Your task to perform on an android device: toggle notifications settings in the gmail app Image 0: 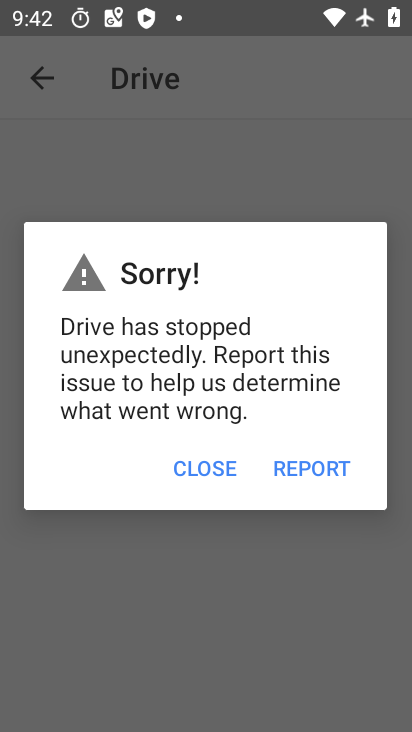
Step 0: press home button
Your task to perform on an android device: toggle notifications settings in the gmail app Image 1: 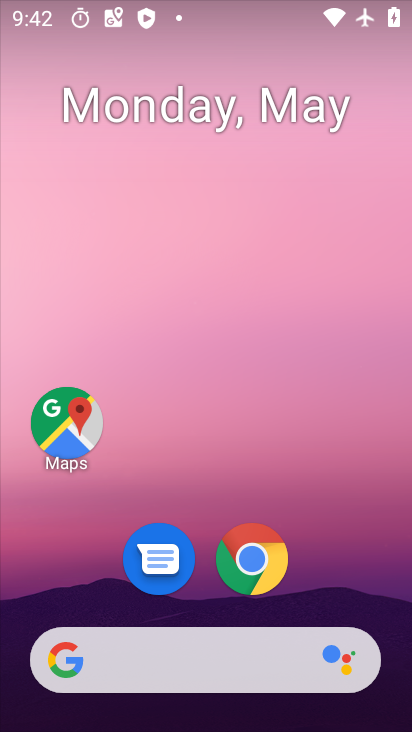
Step 1: drag from (334, 596) to (344, 59)
Your task to perform on an android device: toggle notifications settings in the gmail app Image 2: 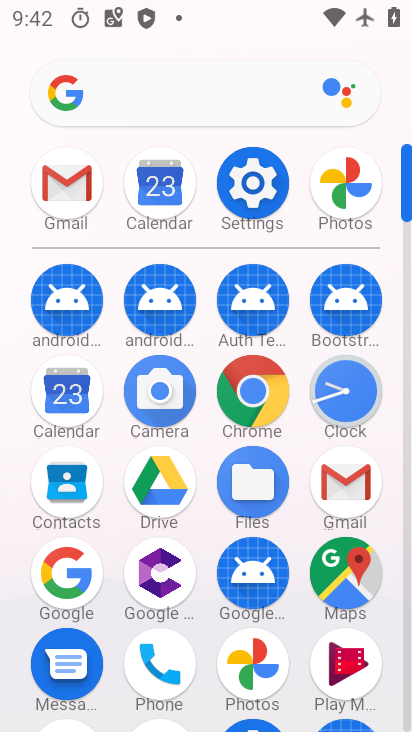
Step 2: click (348, 494)
Your task to perform on an android device: toggle notifications settings in the gmail app Image 3: 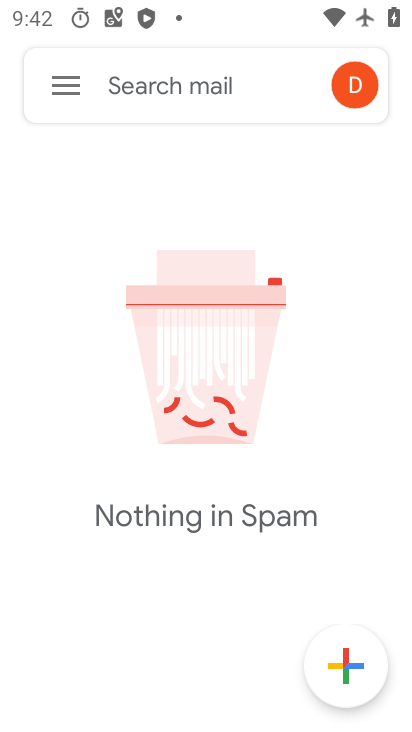
Step 3: click (69, 93)
Your task to perform on an android device: toggle notifications settings in the gmail app Image 4: 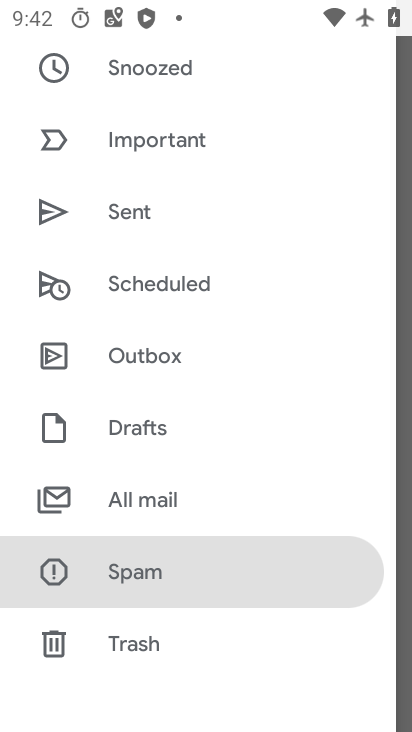
Step 4: drag from (188, 645) to (250, 200)
Your task to perform on an android device: toggle notifications settings in the gmail app Image 5: 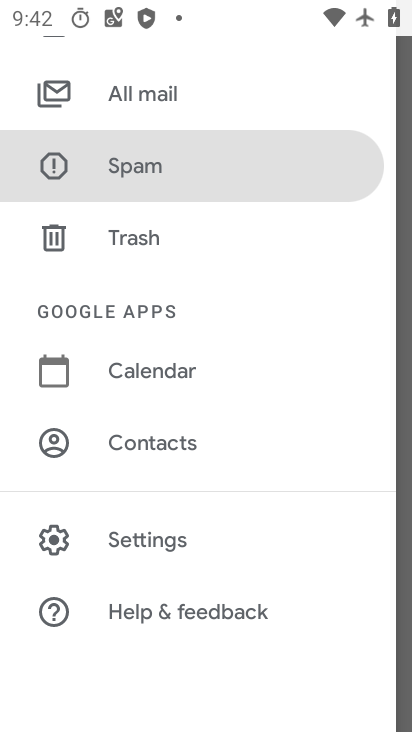
Step 5: click (173, 547)
Your task to perform on an android device: toggle notifications settings in the gmail app Image 6: 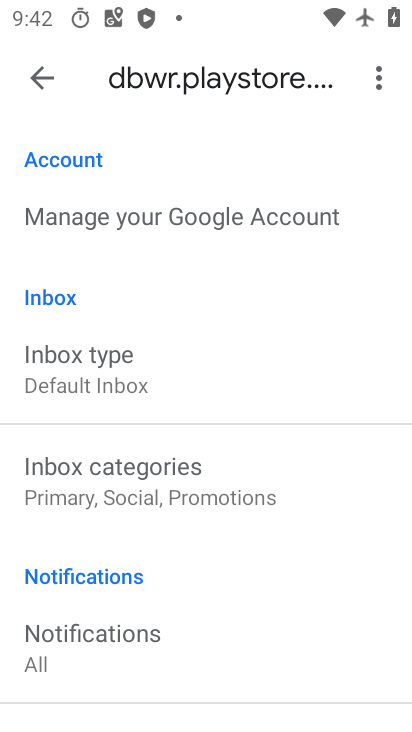
Step 6: drag from (149, 655) to (209, 350)
Your task to perform on an android device: toggle notifications settings in the gmail app Image 7: 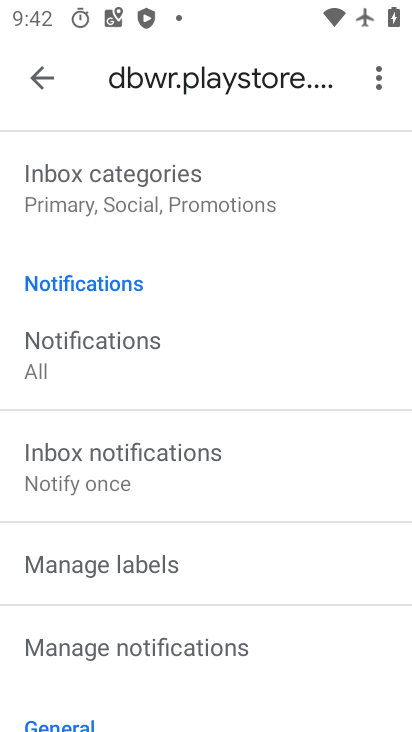
Step 7: drag from (161, 596) to (182, 341)
Your task to perform on an android device: toggle notifications settings in the gmail app Image 8: 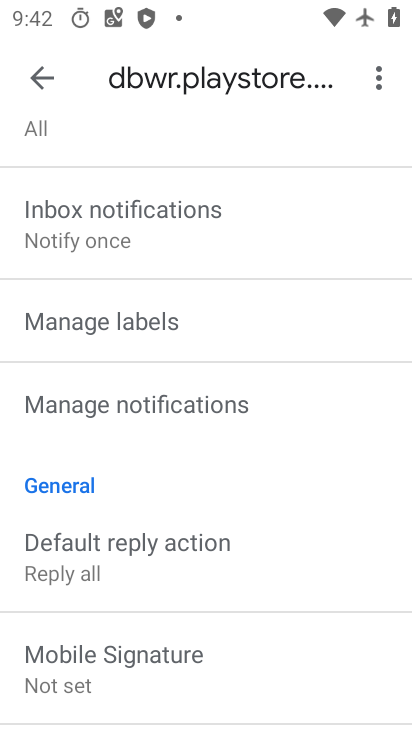
Step 8: click (150, 404)
Your task to perform on an android device: toggle notifications settings in the gmail app Image 9: 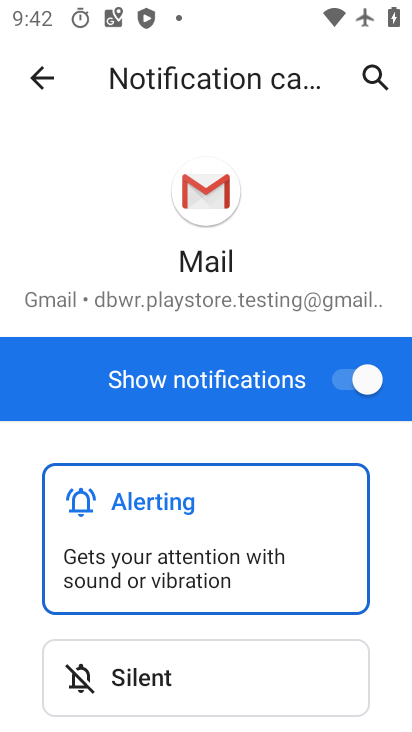
Step 9: click (339, 370)
Your task to perform on an android device: toggle notifications settings in the gmail app Image 10: 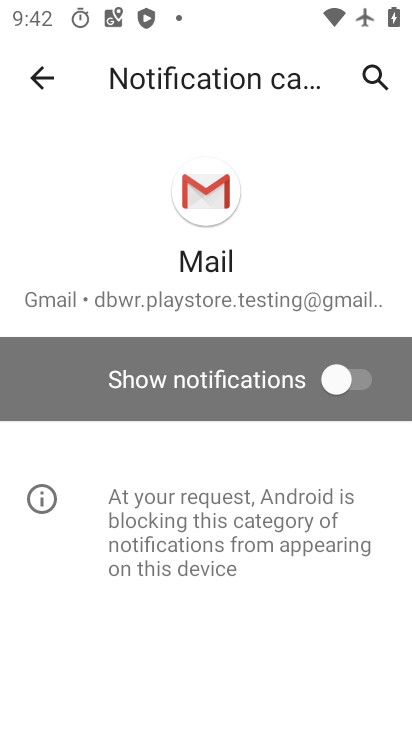
Step 10: task complete